Your task to perform on an android device: Search for sushi restaurants on Maps Image 0: 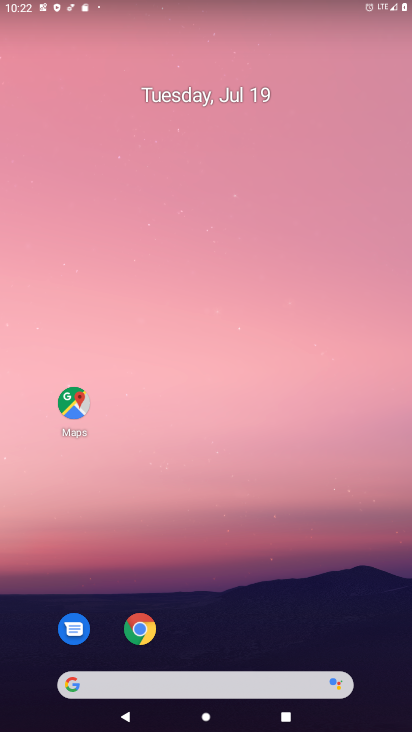
Step 0: click (76, 401)
Your task to perform on an android device: Search for sushi restaurants on Maps Image 1: 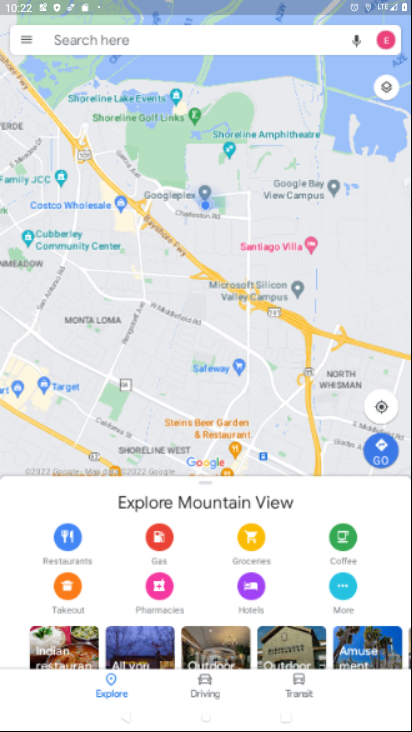
Step 1: click (210, 35)
Your task to perform on an android device: Search for sushi restaurants on Maps Image 2: 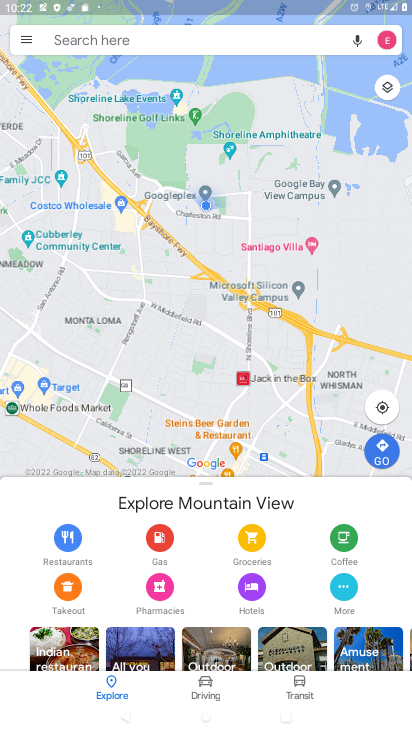
Step 2: click (151, 44)
Your task to perform on an android device: Search for sushi restaurants on Maps Image 3: 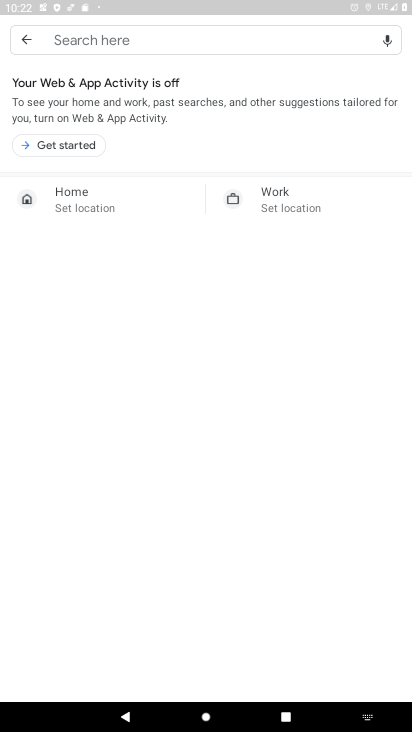
Step 3: type "Sushi restaurants"
Your task to perform on an android device: Search for sushi restaurants on Maps Image 4: 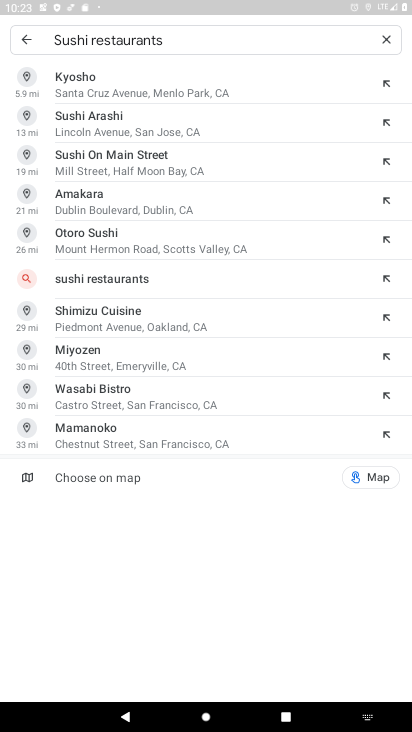
Step 4: click (116, 128)
Your task to perform on an android device: Search for sushi restaurants on Maps Image 5: 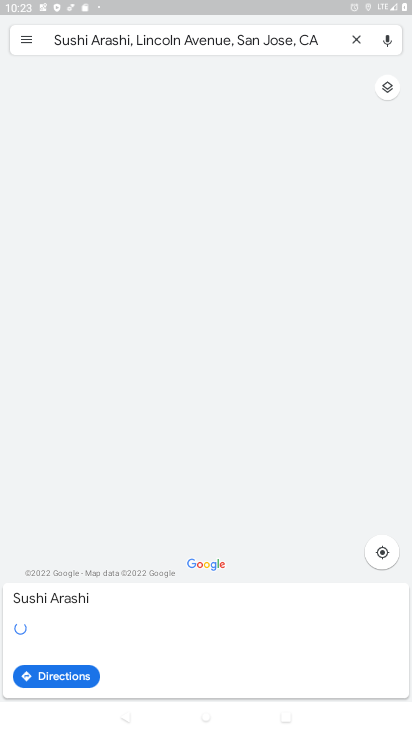
Step 5: task complete